Your task to perform on an android device: turn off data saver in the chrome app Image 0: 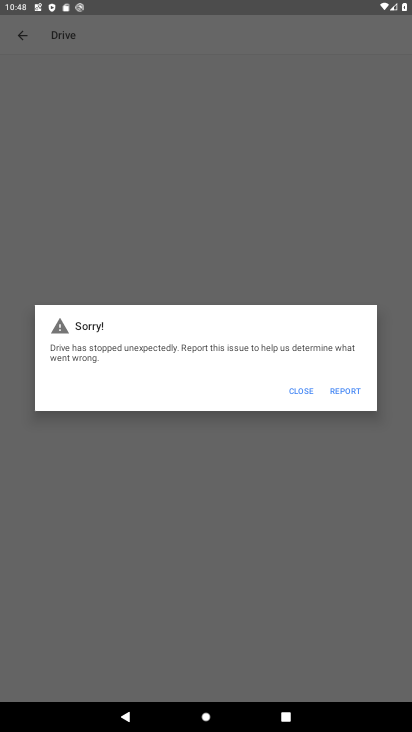
Step 0: press home button
Your task to perform on an android device: turn off data saver in the chrome app Image 1: 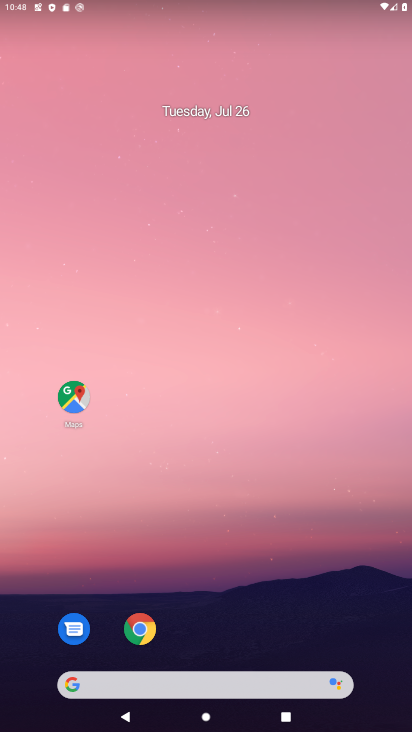
Step 1: click (146, 616)
Your task to perform on an android device: turn off data saver in the chrome app Image 2: 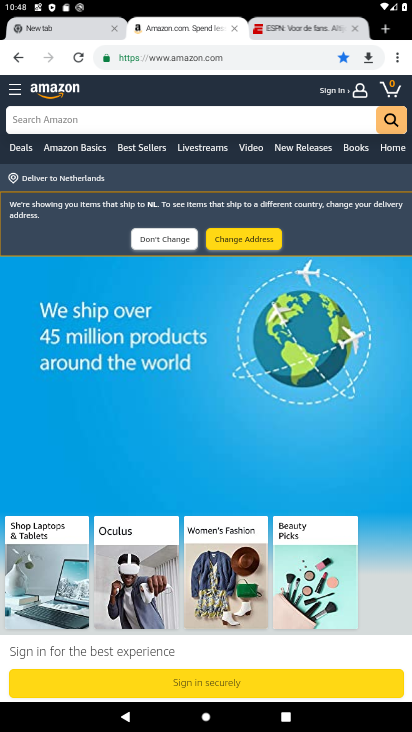
Step 2: click (400, 59)
Your task to perform on an android device: turn off data saver in the chrome app Image 3: 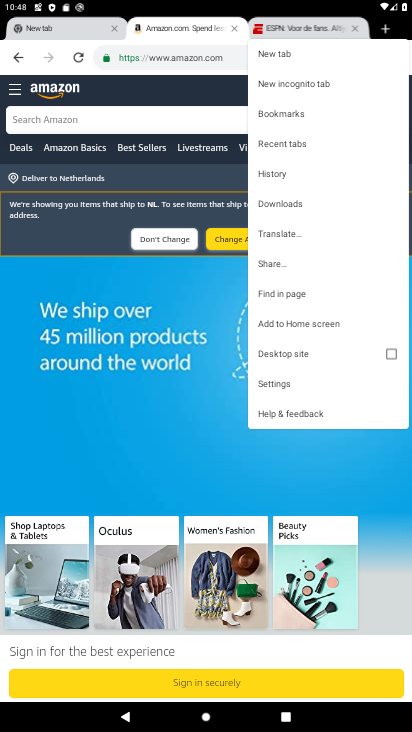
Step 3: click (289, 375)
Your task to perform on an android device: turn off data saver in the chrome app Image 4: 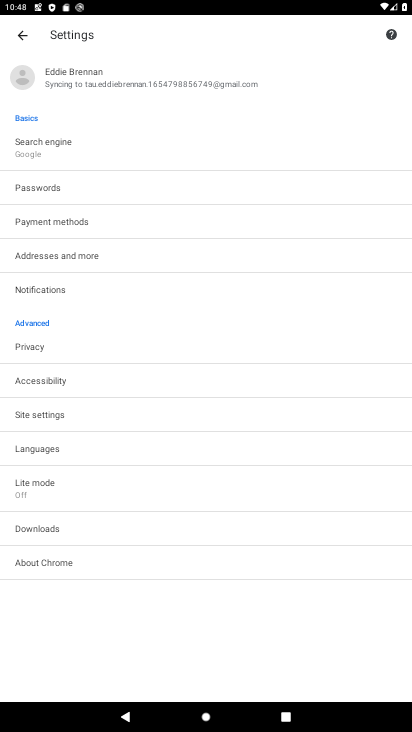
Step 4: click (70, 500)
Your task to perform on an android device: turn off data saver in the chrome app Image 5: 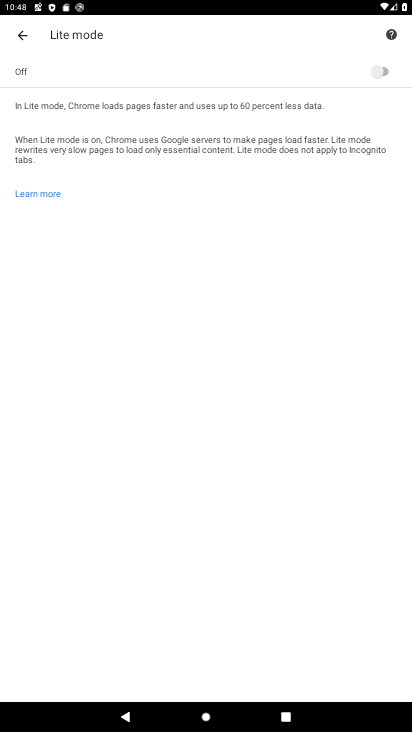
Step 5: click (50, 64)
Your task to perform on an android device: turn off data saver in the chrome app Image 6: 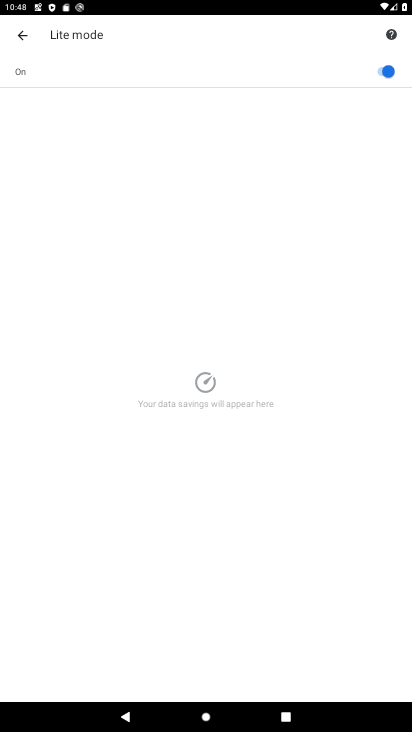
Step 6: task complete